Your task to perform on an android device: toggle wifi Image 0: 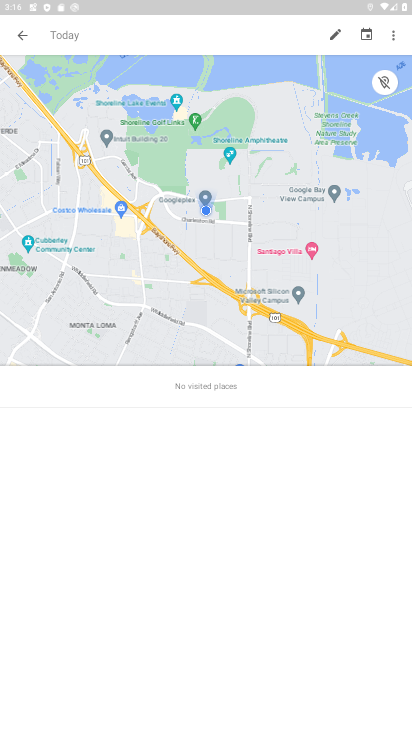
Step 0: press home button
Your task to perform on an android device: toggle wifi Image 1: 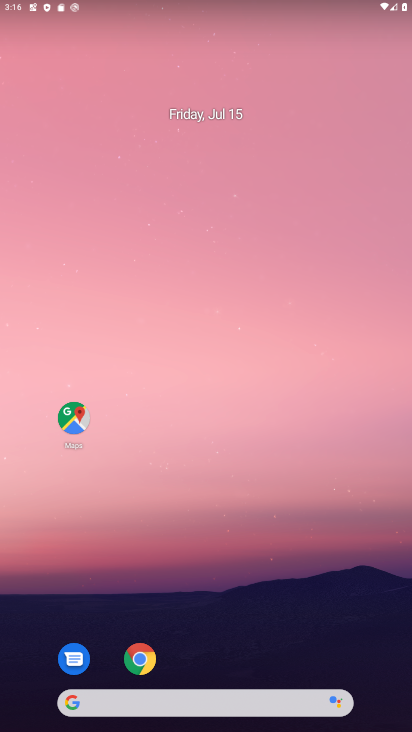
Step 1: drag from (196, 386) to (377, 130)
Your task to perform on an android device: toggle wifi Image 2: 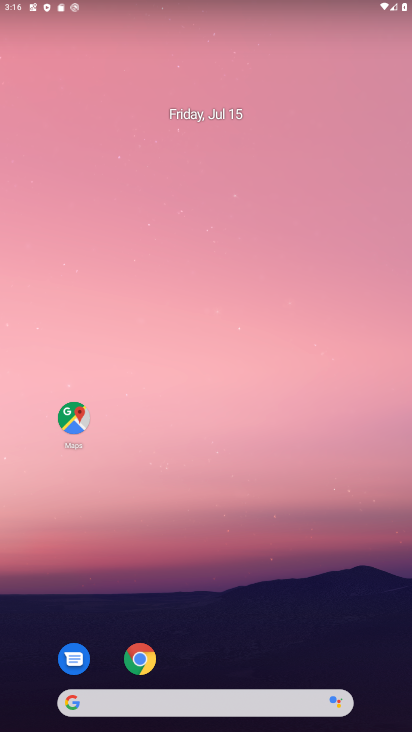
Step 2: drag from (184, 171) to (188, 101)
Your task to perform on an android device: toggle wifi Image 3: 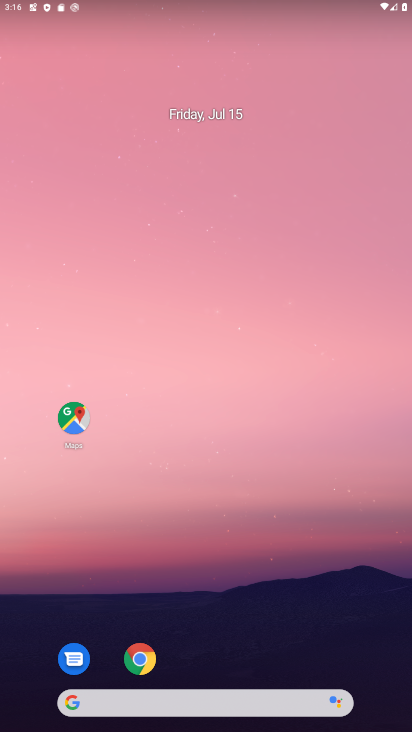
Step 3: drag from (25, 676) to (171, 41)
Your task to perform on an android device: toggle wifi Image 4: 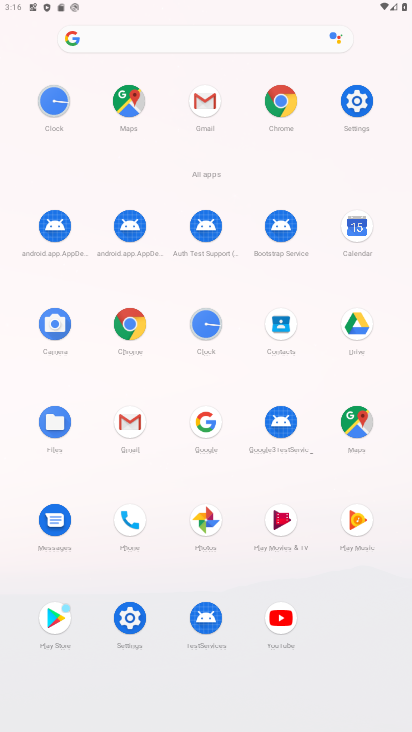
Step 4: click (137, 619)
Your task to perform on an android device: toggle wifi Image 5: 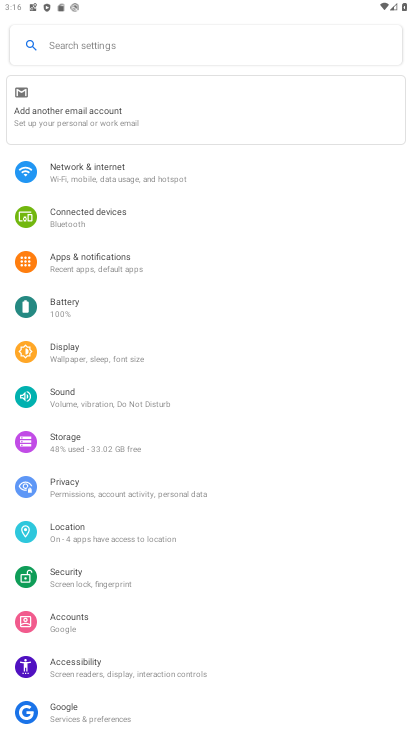
Step 5: click (87, 173)
Your task to perform on an android device: toggle wifi Image 6: 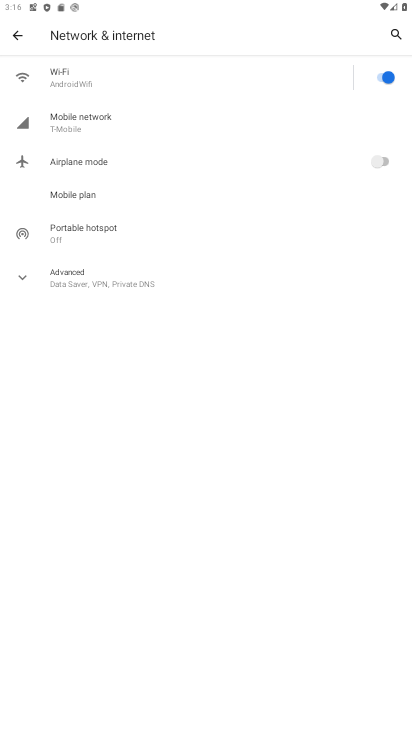
Step 6: click (73, 70)
Your task to perform on an android device: toggle wifi Image 7: 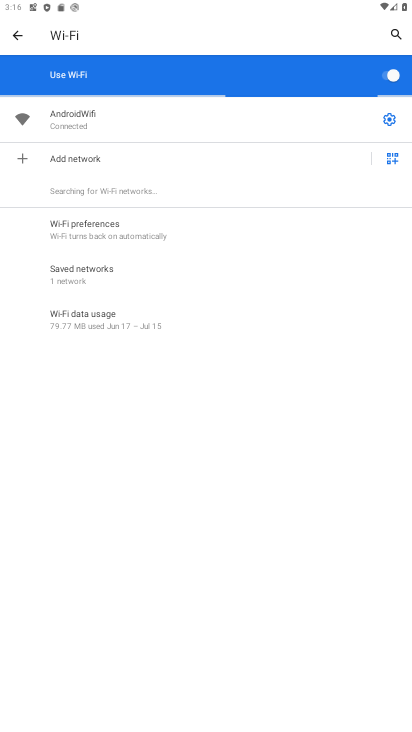
Step 7: task complete